Your task to perform on an android device: Go to location settings Image 0: 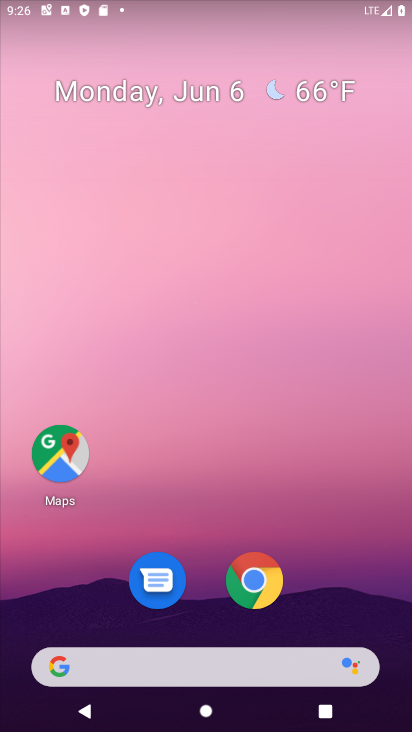
Step 0: drag from (327, 588) to (317, 3)
Your task to perform on an android device: Go to location settings Image 1: 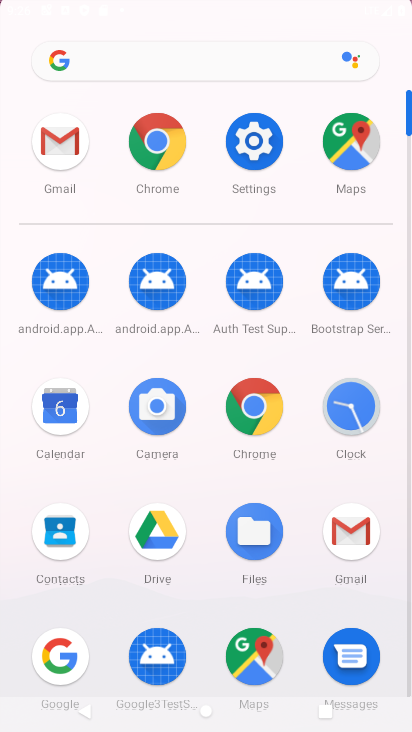
Step 1: click (247, 184)
Your task to perform on an android device: Go to location settings Image 2: 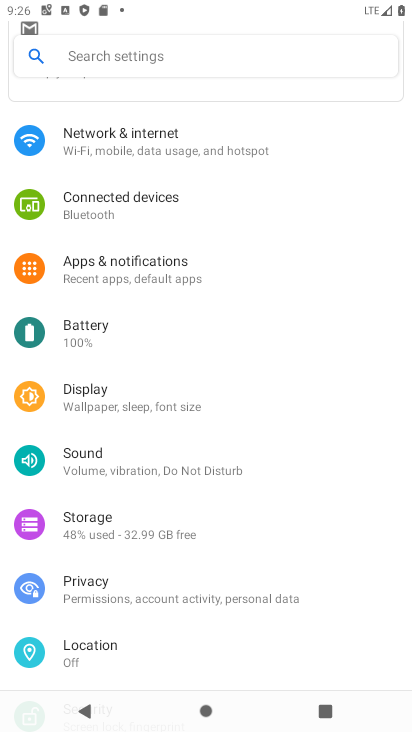
Step 2: drag from (178, 592) to (240, 153)
Your task to perform on an android device: Go to location settings Image 3: 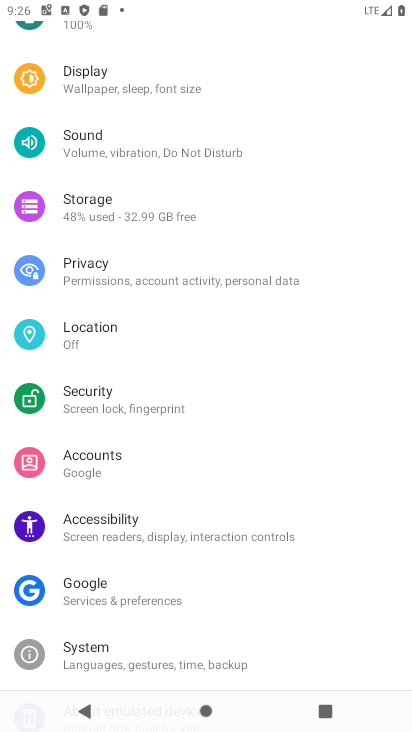
Step 3: click (87, 339)
Your task to perform on an android device: Go to location settings Image 4: 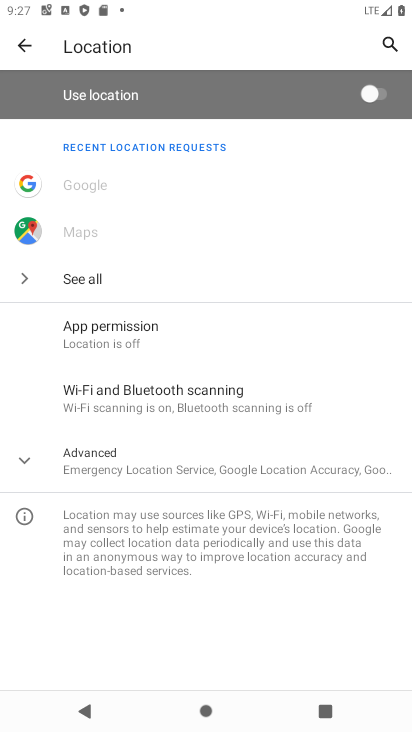
Step 4: task complete